Your task to perform on an android device: toggle airplane mode Image 0: 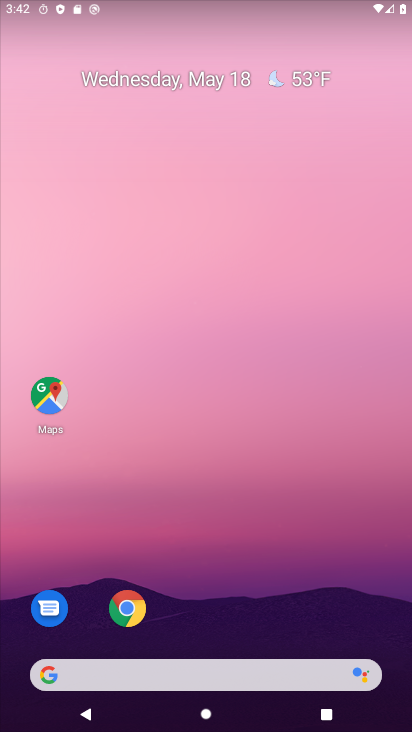
Step 0: drag from (174, 689) to (255, 8)
Your task to perform on an android device: toggle airplane mode Image 1: 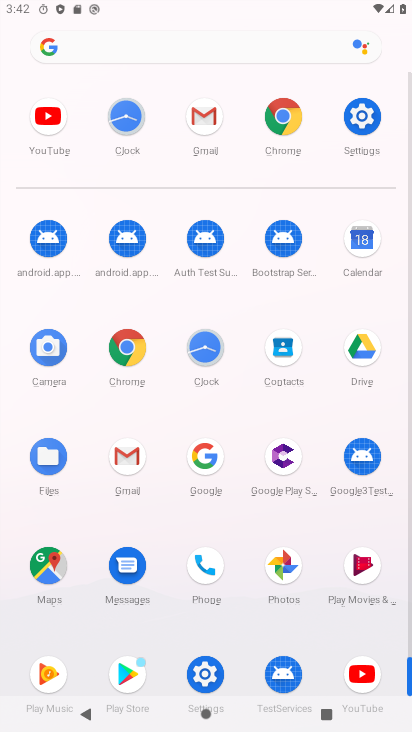
Step 1: click (363, 110)
Your task to perform on an android device: toggle airplane mode Image 2: 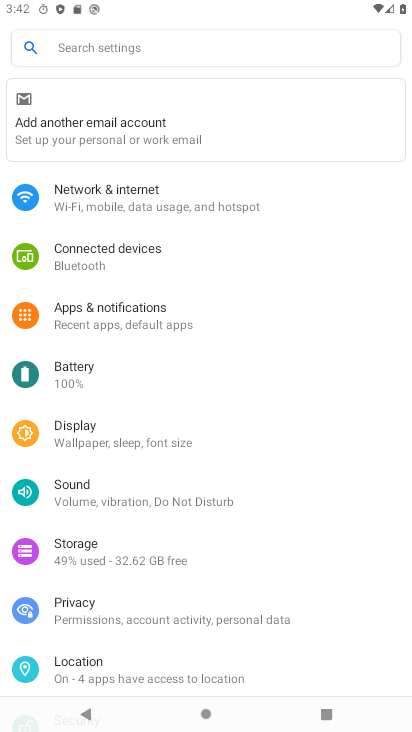
Step 2: click (163, 208)
Your task to perform on an android device: toggle airplane mode Image 3: 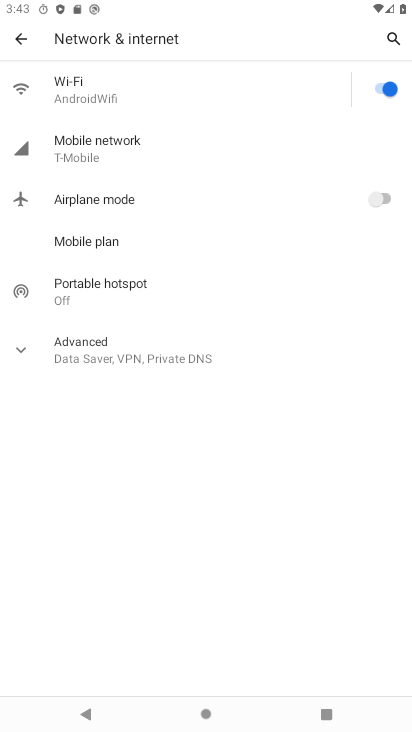
Step 3: click (385, 194)
Your task to perform on an android device: toggle airplane mode Image 4: 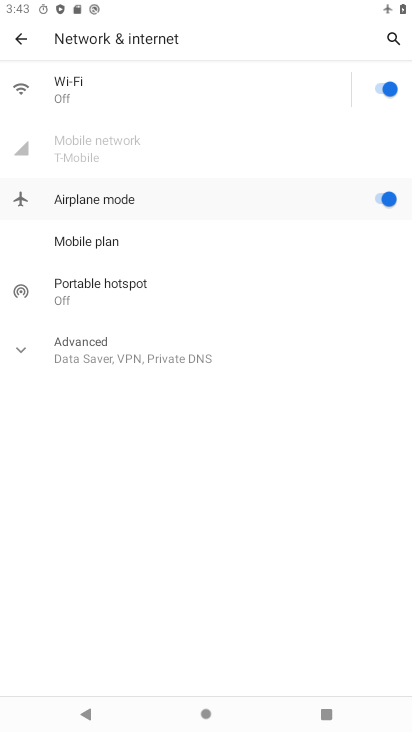
Step 4: task complete